Your task to perform on an android device: View the shopping cart on target.com. Search for macbook air on target.com, select the first entry, and add it to the cart. Image 0: 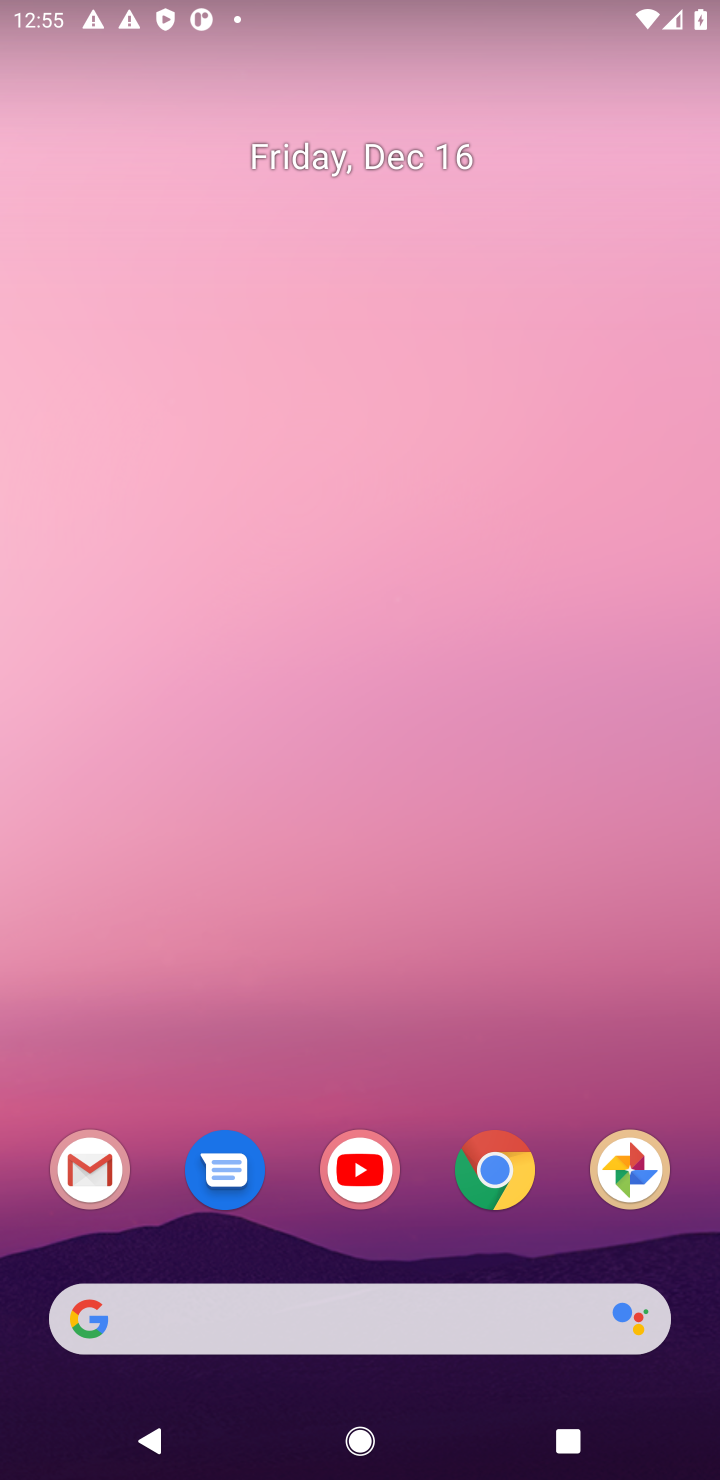
Step 0: click (498, 1163)
Your task to perform on an android device: View the shopping cart on target.com. Search for macbook air on target.com, select the first entry, and add it to the cart. Image 1: 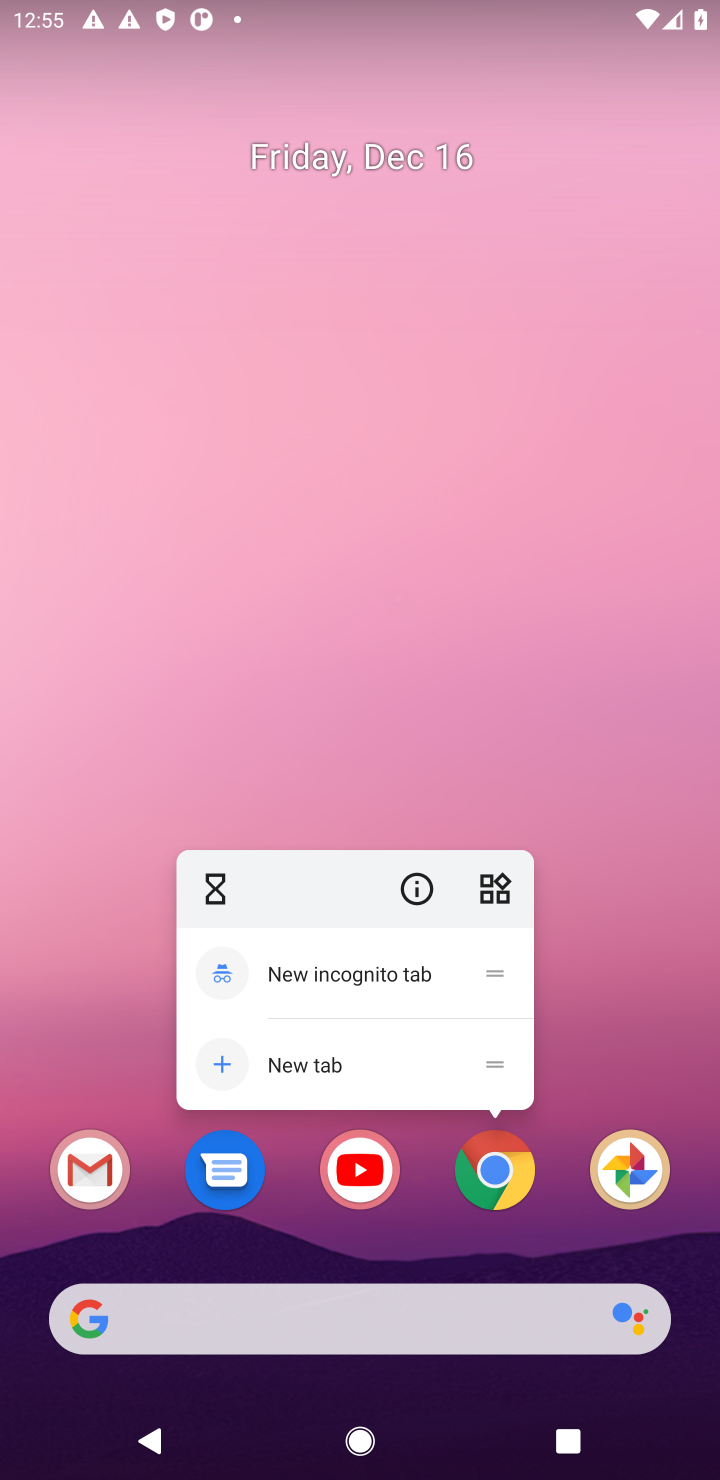
Step 1: click (488, 1161)
Your task to perform on an android device: View the shopping cart on target.com. Search for macbook air on target.com, select the first entry, and add it to the cart. Image 2: 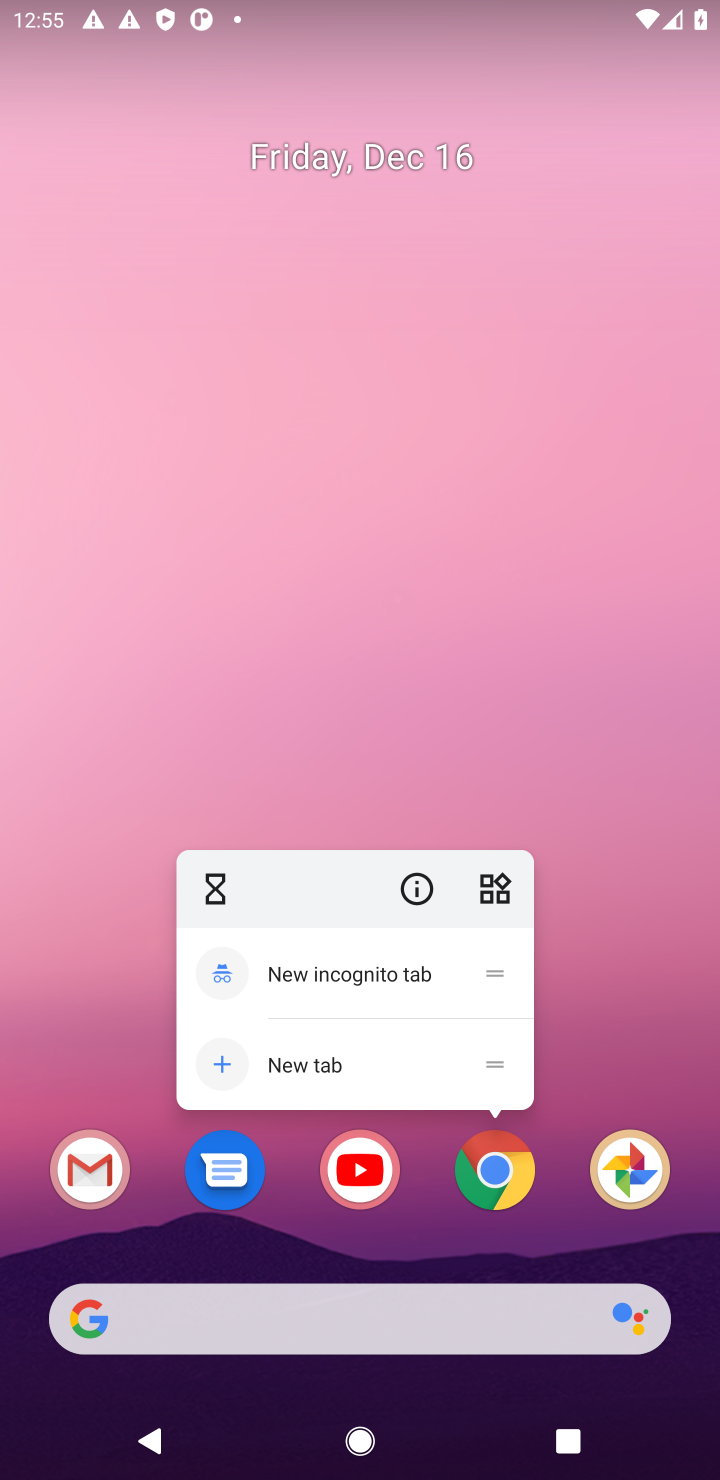
Step 2: click (494, 1177)
Your task to perform on an android device: View the shopping cart on target.com. Search for macbook air on target.com, select the first entry, and add it to the cart. Image 3: 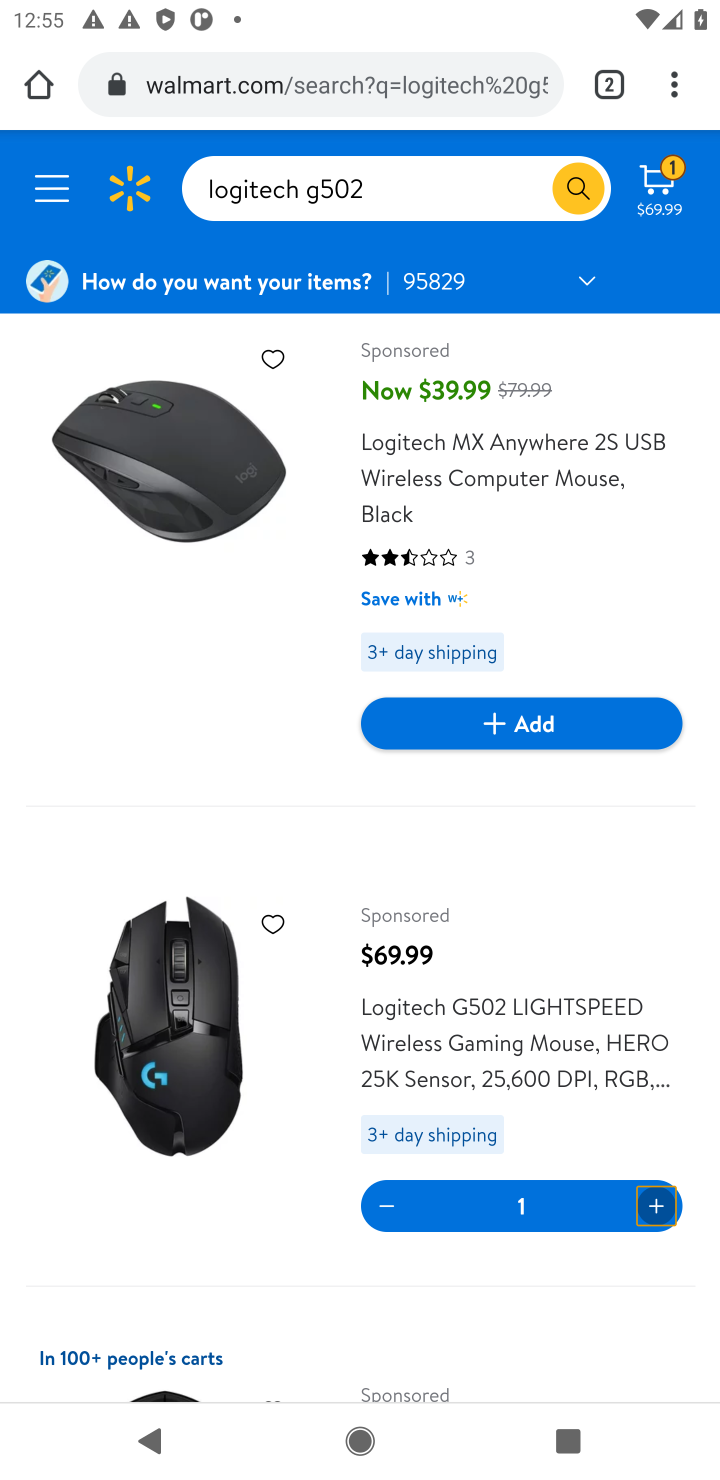
Step 3: click (282, 84)
Your task to perform on an android device: View the shopping cart on target.com. Search for macbook air on target.com, select the first entry, and add it to the cart. Image 4: 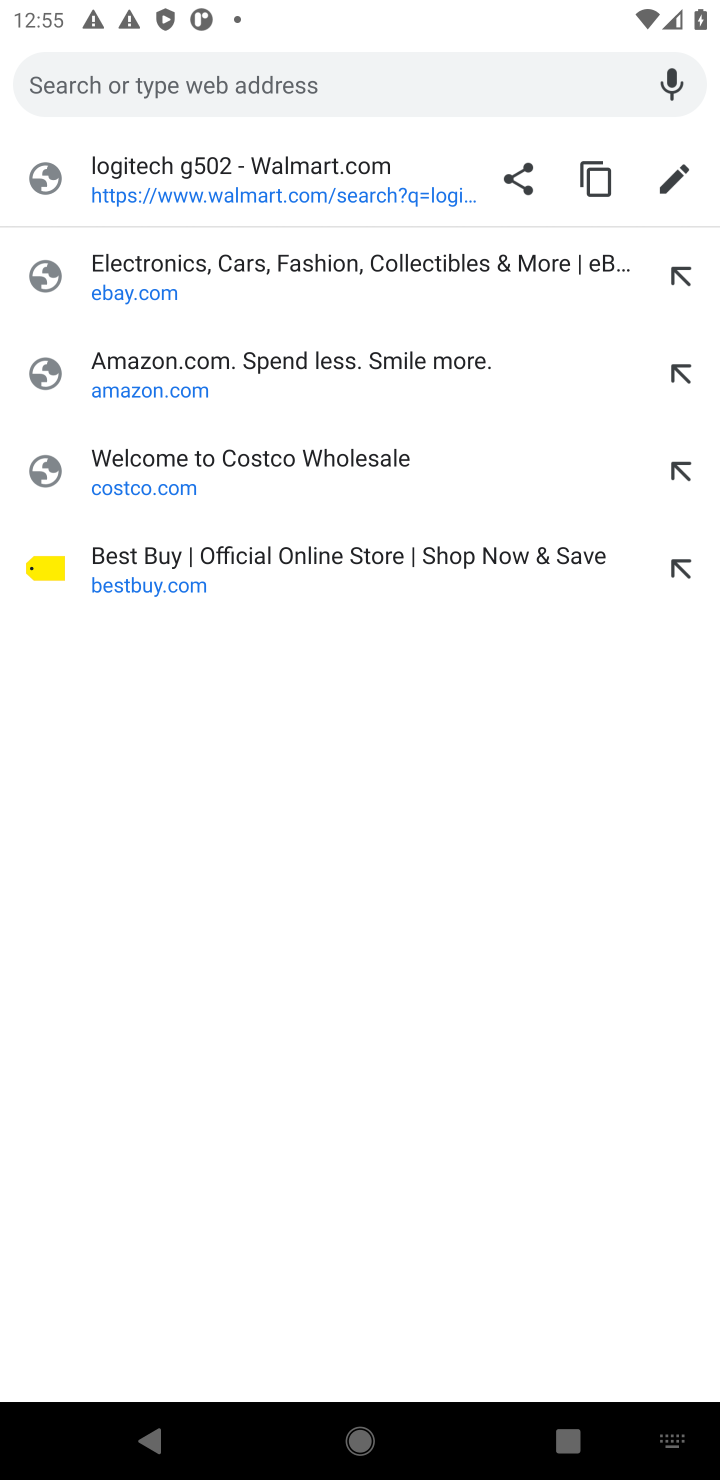
Step 4: type "target.com"
Your task to perform on an android device: View the shopping cart on target.com. Search for macbook air on target.com, select the first entry, and add it to the cart. Image 5: 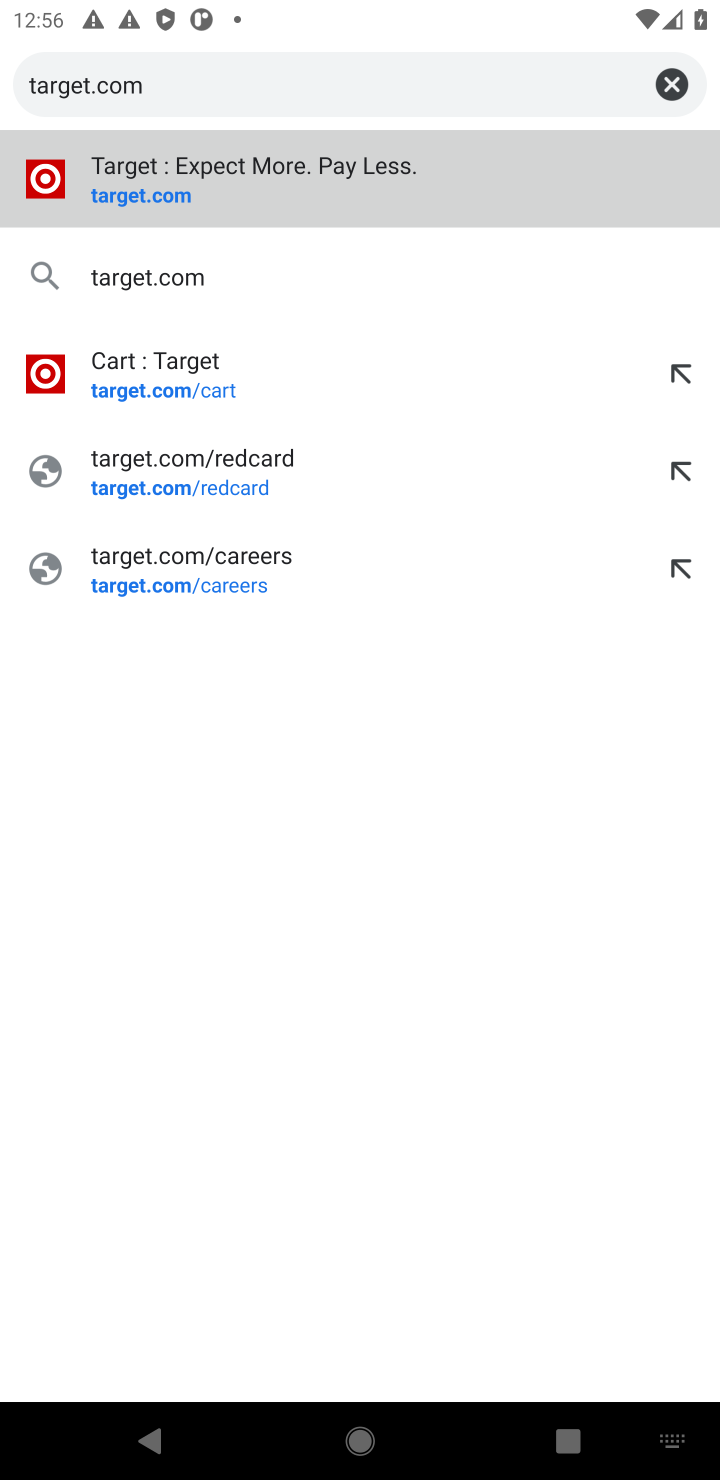
Step 5: click (141, 160)
Your task to perform on an android device: View the shopping cart on target.com. Search for macbook air on target.com, select the first entry, and add it to the cart. Image 6: 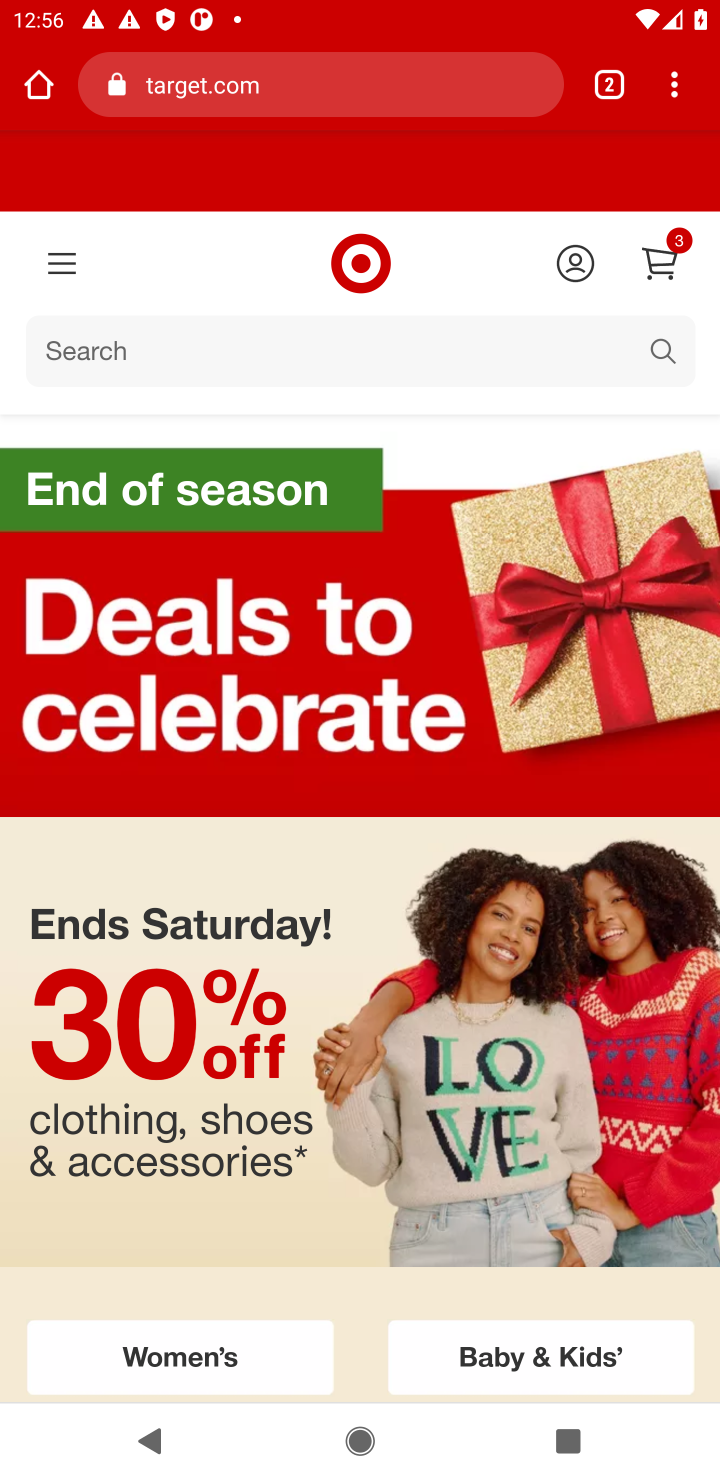
Step 6: click (671, 261)
Your task to perform on an android device: View the shopping cart on target.com. Search for macbook air on target.com, select the first entry, and add it to the cart. Image 7: 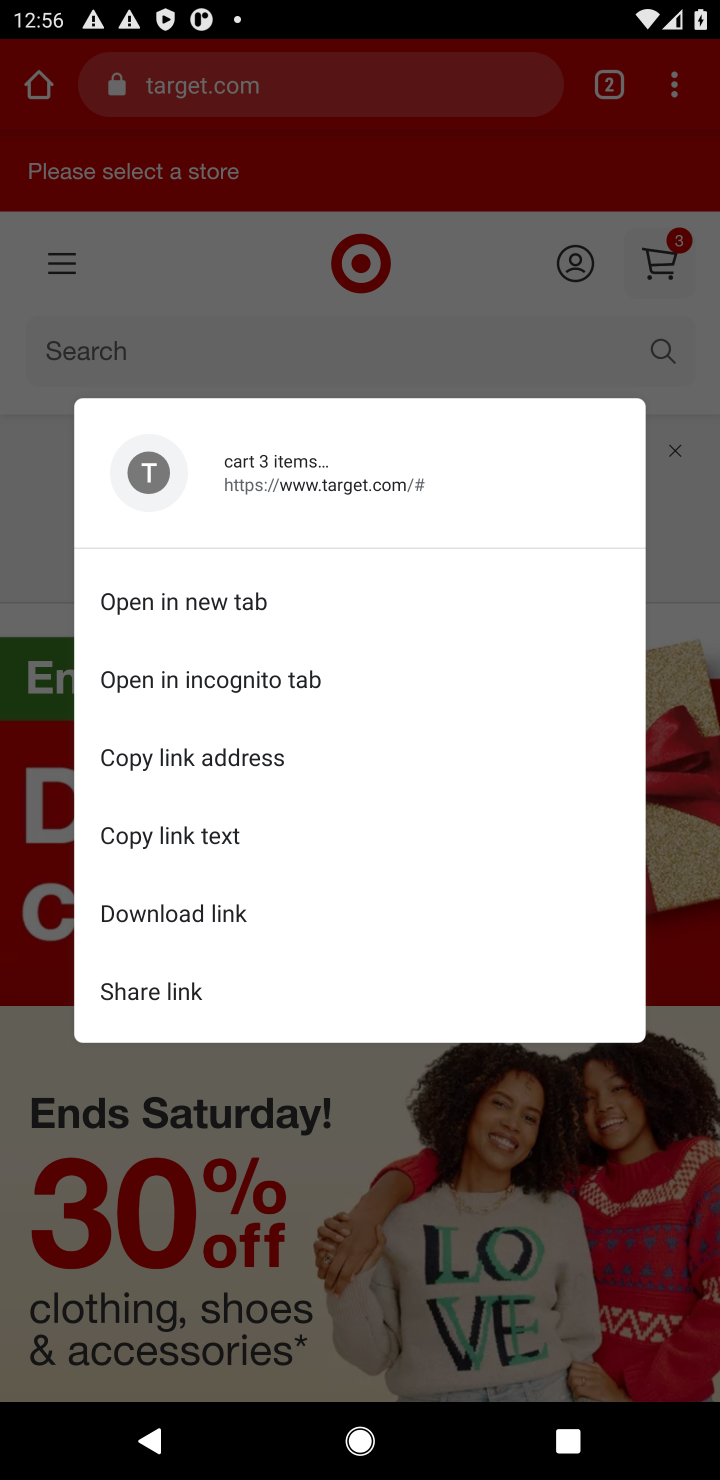
Step 7: click (671, 261)
Your task to perform on an android device: View the shopping cart on target.com. Search for macbook air on target.com, select the first entry, and add it to the cart. Image 8: 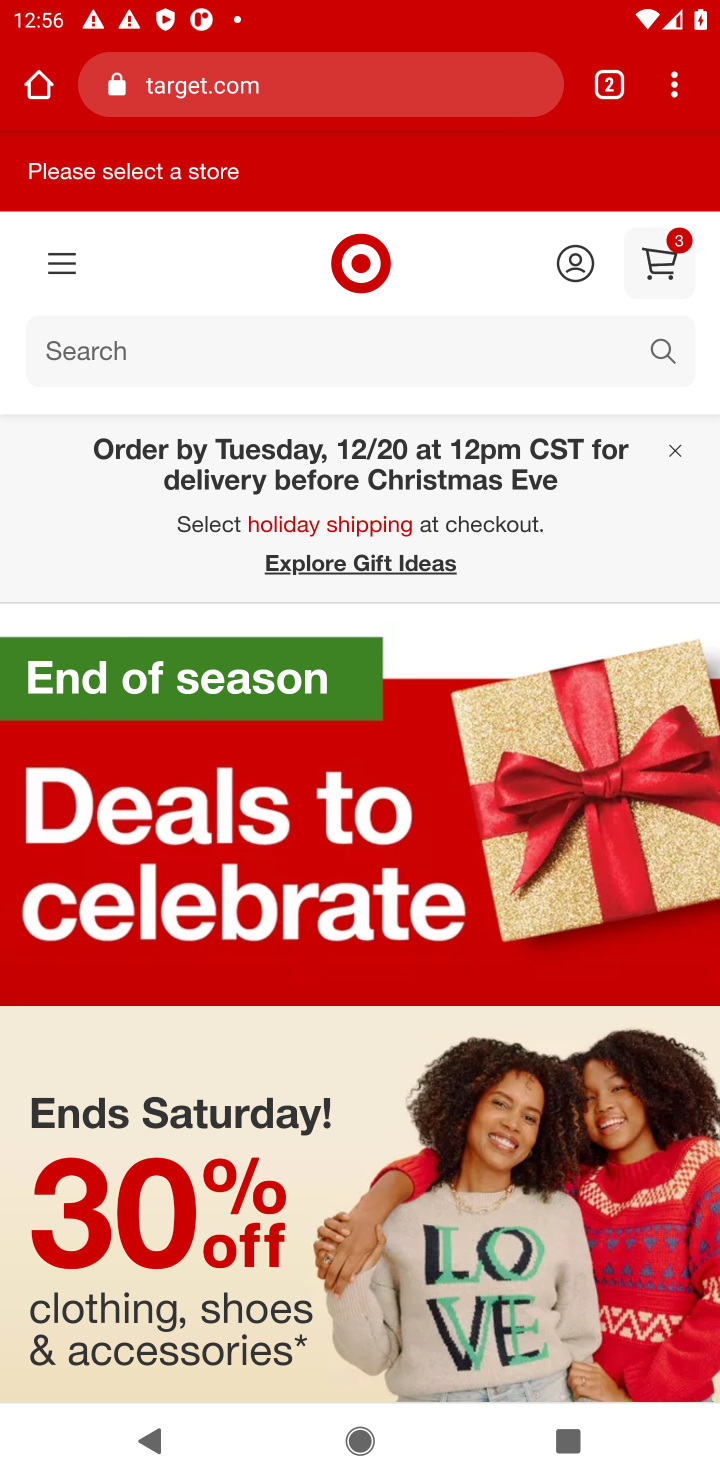
Step 8: click (662, 261)
Your task to perform on an android device: View the shopping cart on target.com. Search for macbook air on target.com, select the first entry, and add it to the cart. Image 9: 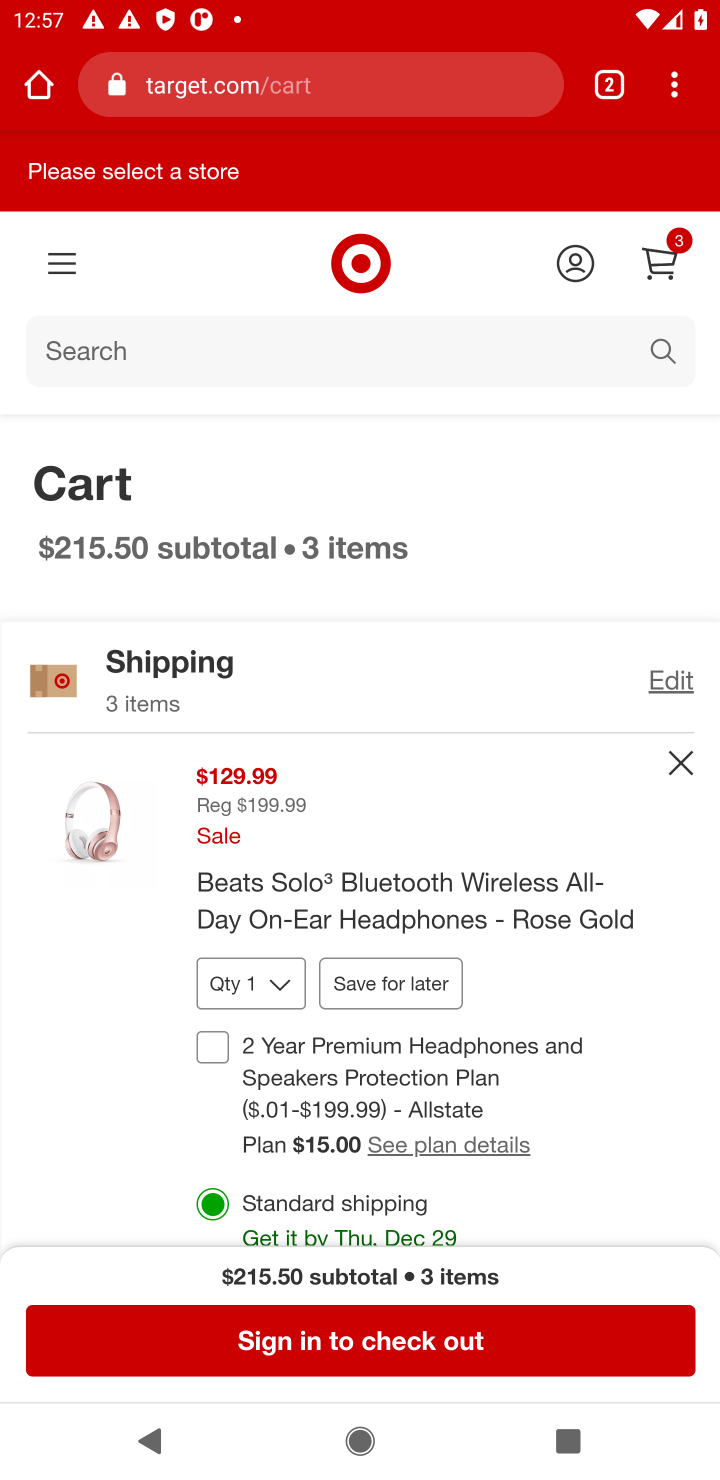
Step 9: click (97, 345)
Your task to perform on an android device: View the shopping cart on target.com. Search for macbook air on target.com, select the first entry, and add it to the cart. Image 10: 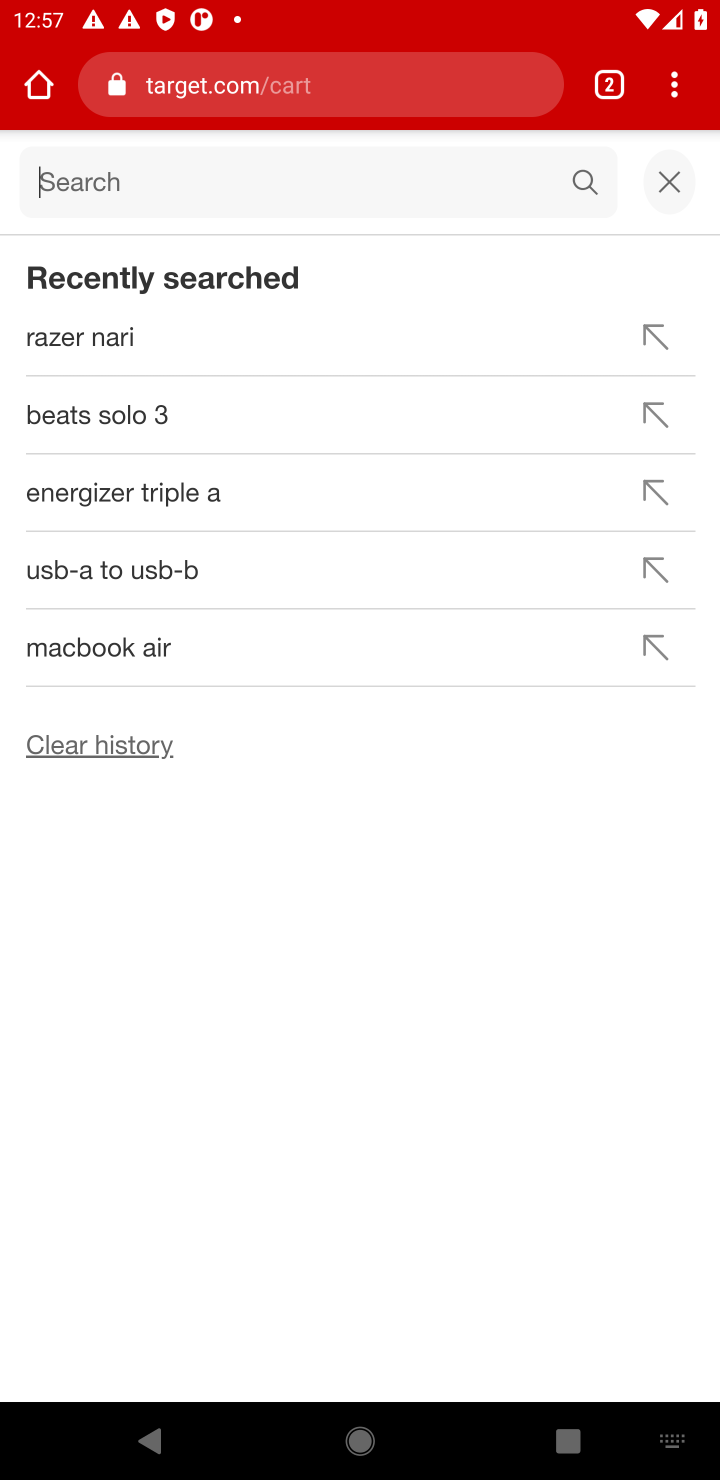
Step 10: type "macbook air"
Your task to perform on an android device: View the shopping cart on target.com. Search for macbook air on target.com, select the first entry, and add it to the cart. Image 11: 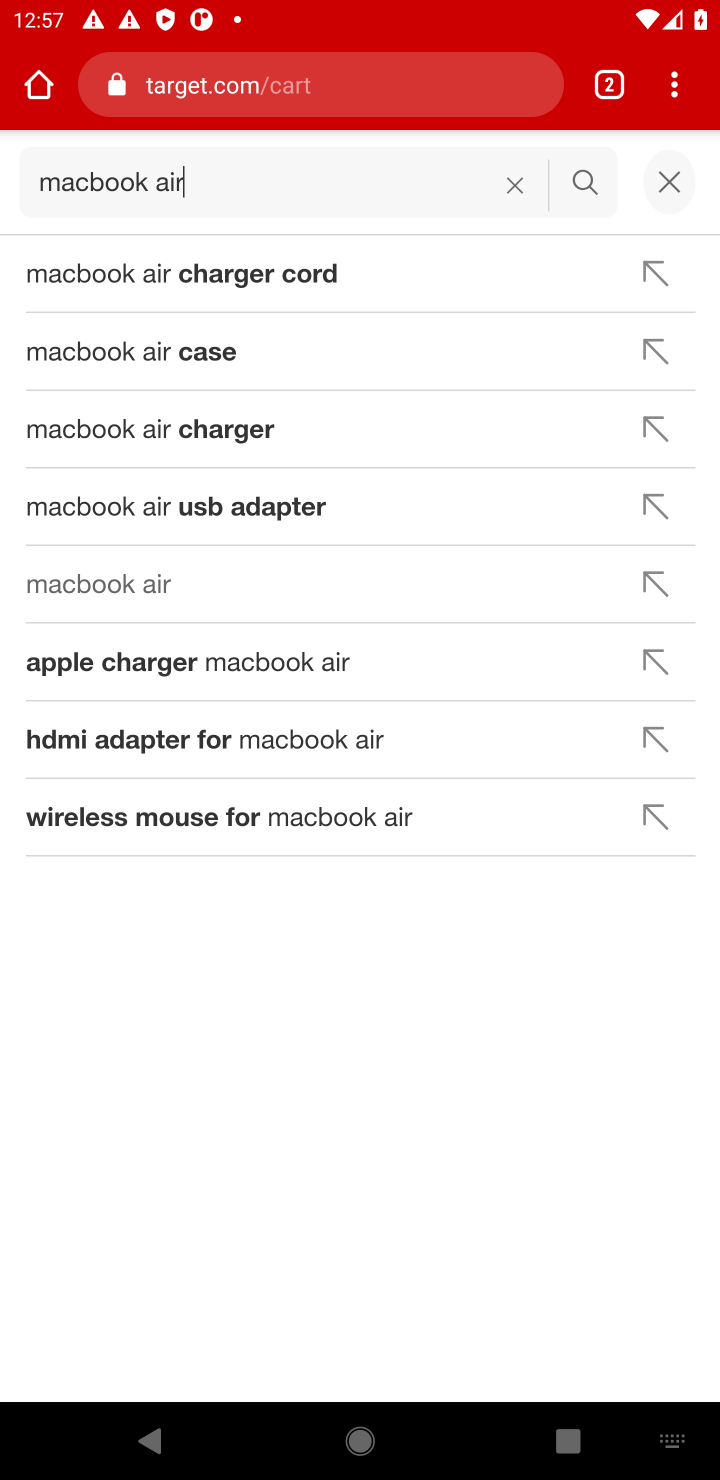
Step 11: click (140, 590)
Your task to perform on an android device: View the shopping cart on target.com. Search for macbook air on target.com, select the first entry, and add it to the cart. Image 12: 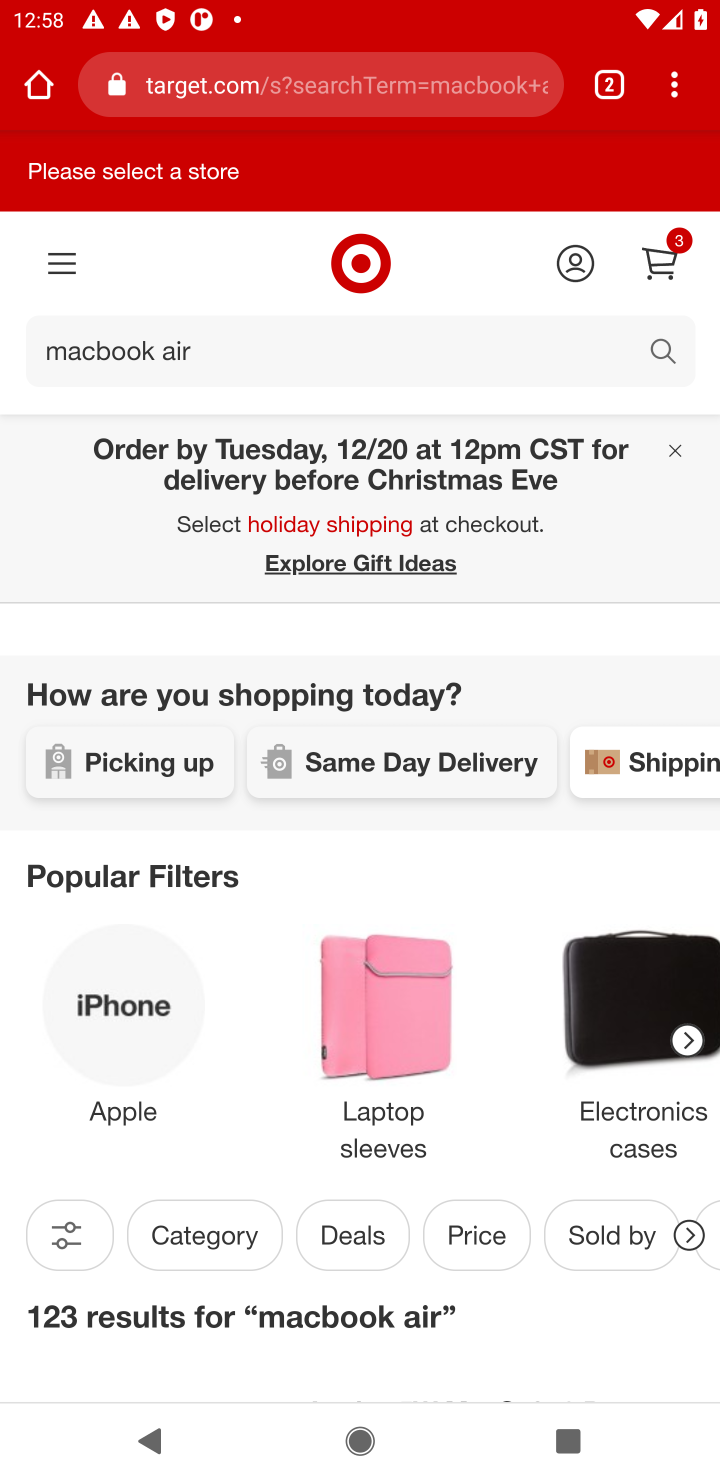
Step 12: drag from (209, 967) to (203, 451)
Your task to perform on an android device: View the shopping cart on target.com. Search for macbook air on target.com, select the first entry, and add it to the cart. Image 13: 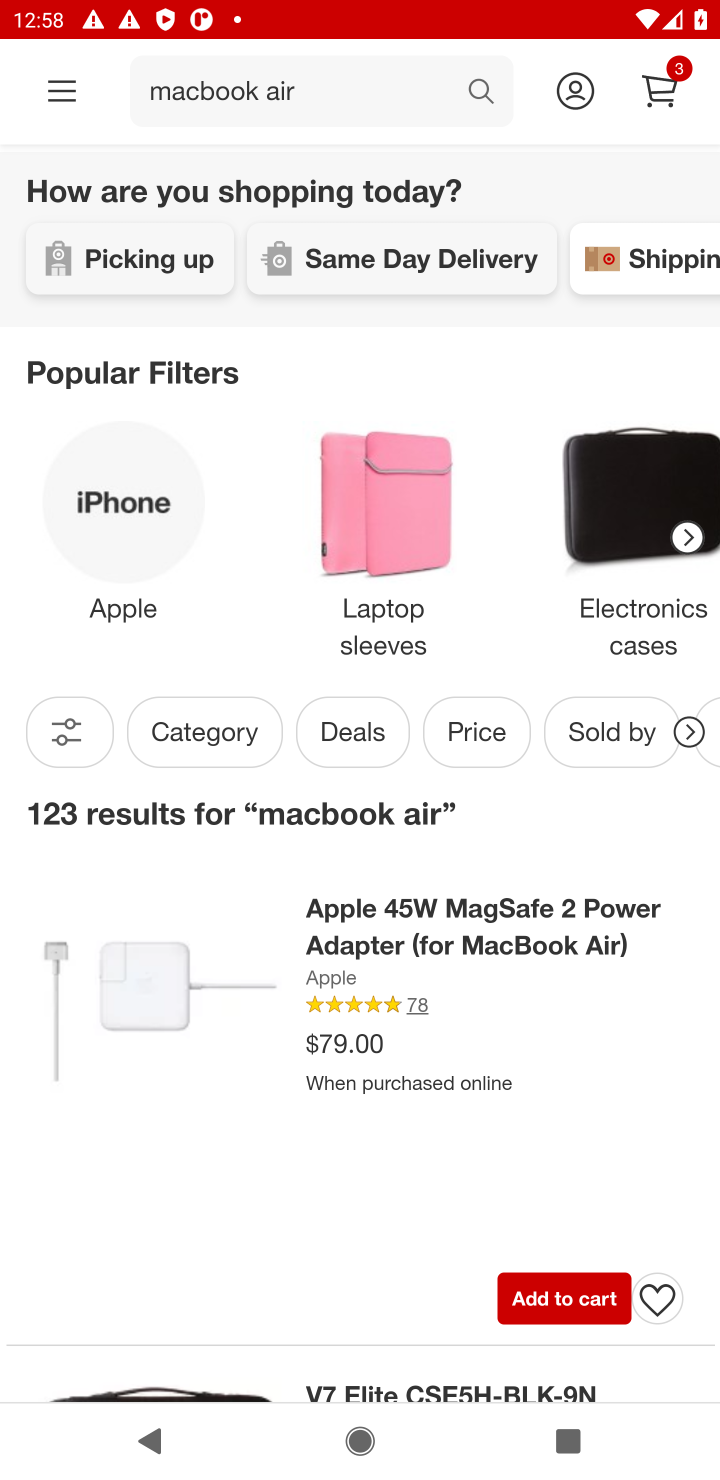
Step 13: click (515, 1292)
Your task to perform on an android device: View the shopping cart on target.com. Search for macbook air on target.com, select the first entry, and add it to the cart. Image 14: 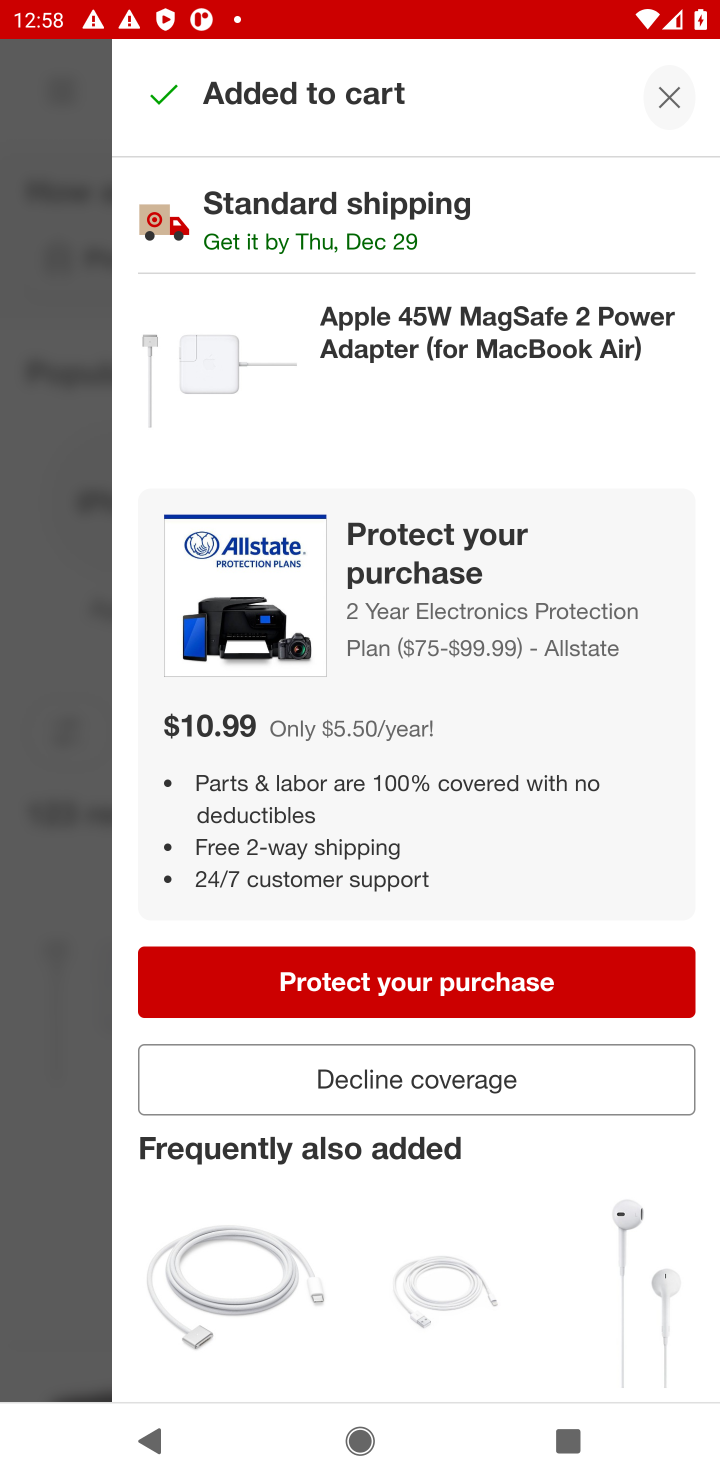
Step 14: task complete